Your task to perform on an android device: turn smart compose on in the gmail app Image 0: 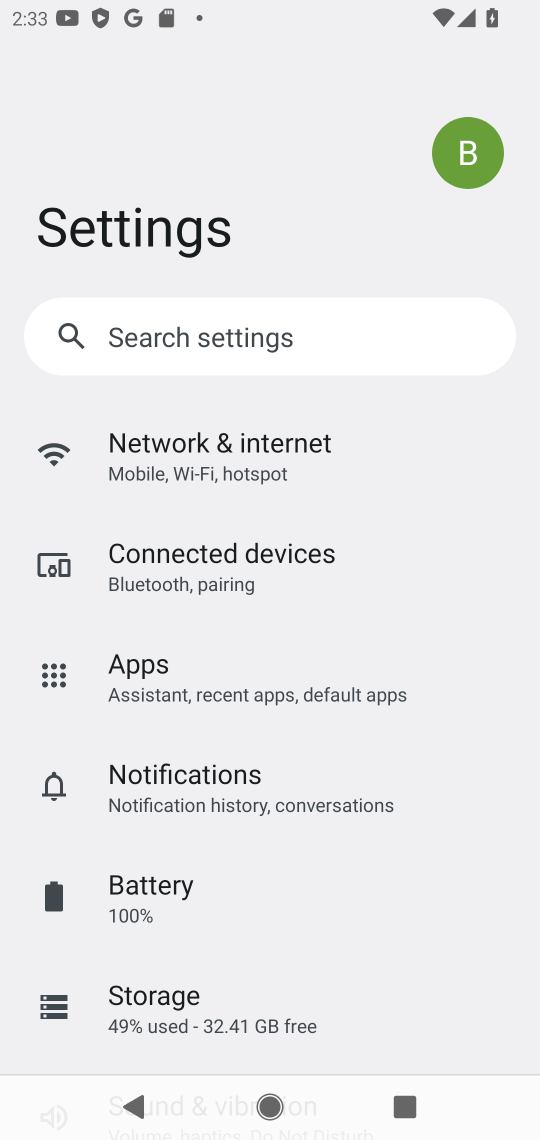
Step 0: press home button
Your task to perform on an android device: turn smart compose on in the gmail app Image 1: 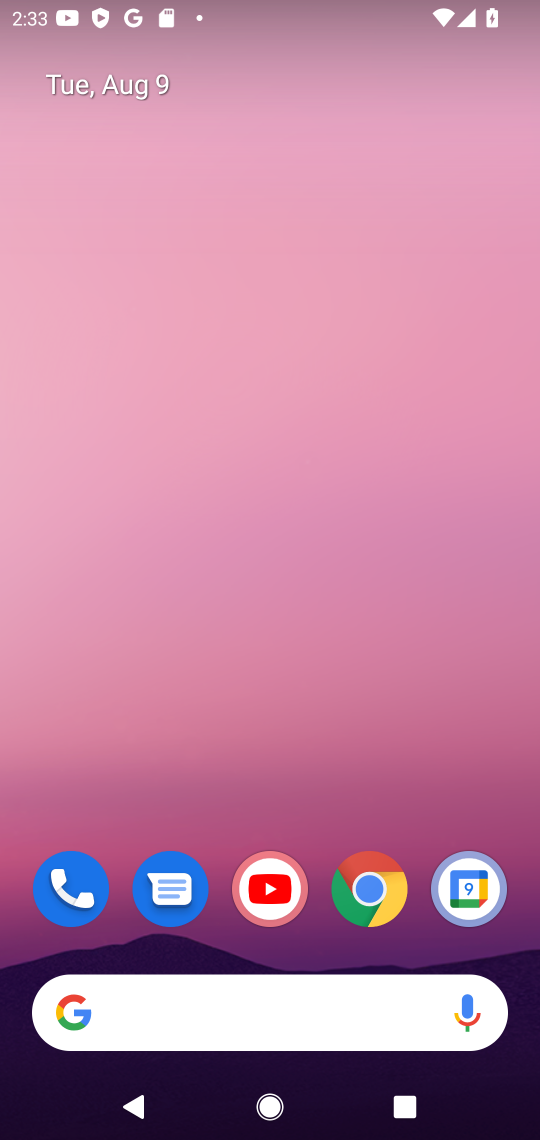
Step 1: drag from (247, 786) to (333, 0)
Your task to perform on an android device: turn smart compose on in the gmail app Image 2: 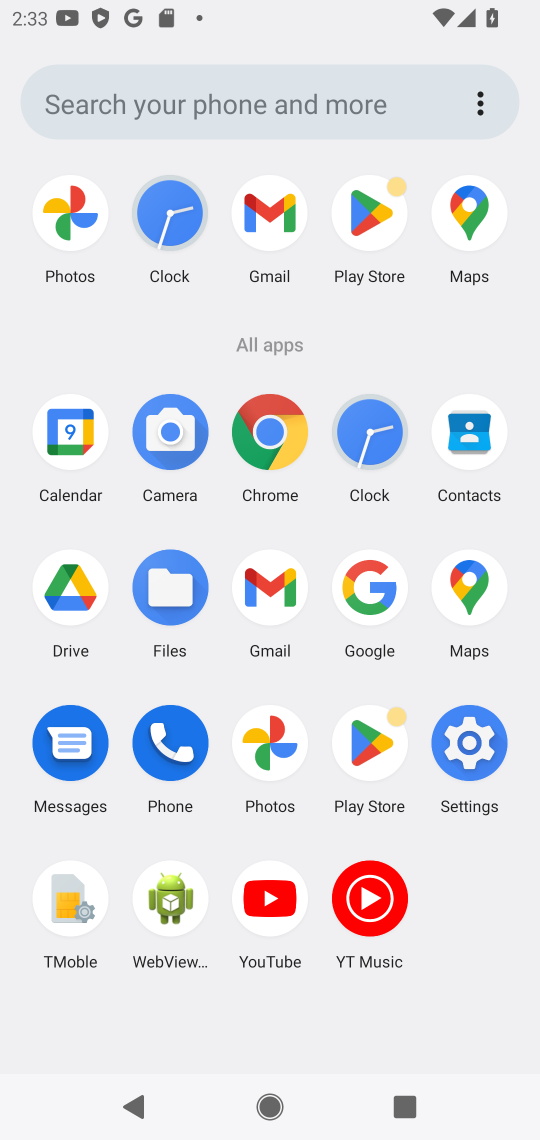
Step 2: click (284, 207)
Your task to perform on an android device: turn smart compose on in the gmail app Image 3: 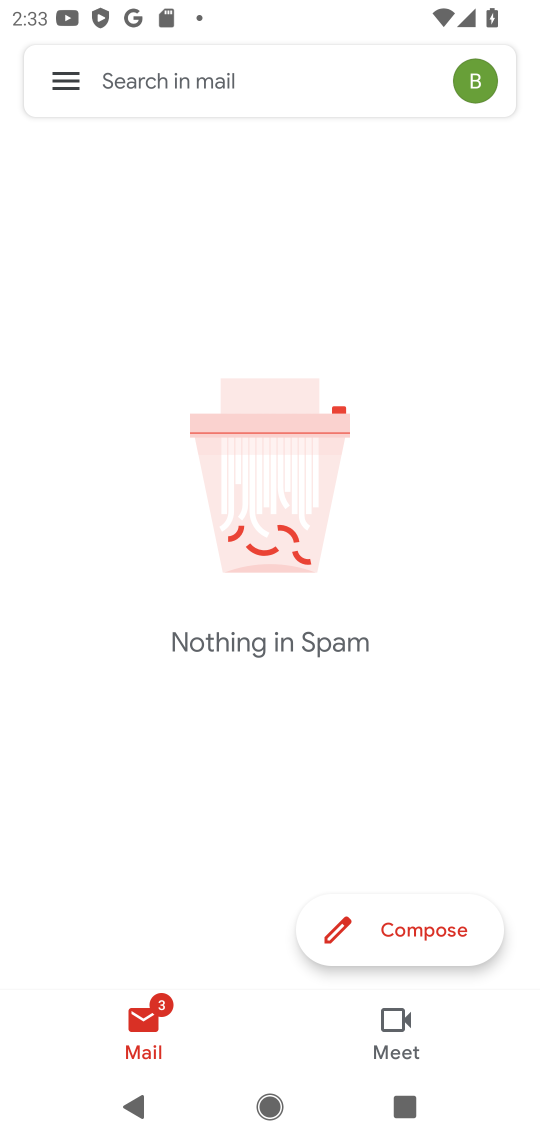
Step 3: click (72, 70)
Your task to perform on an android device: turn smart compose on in the gmail app Image 4: 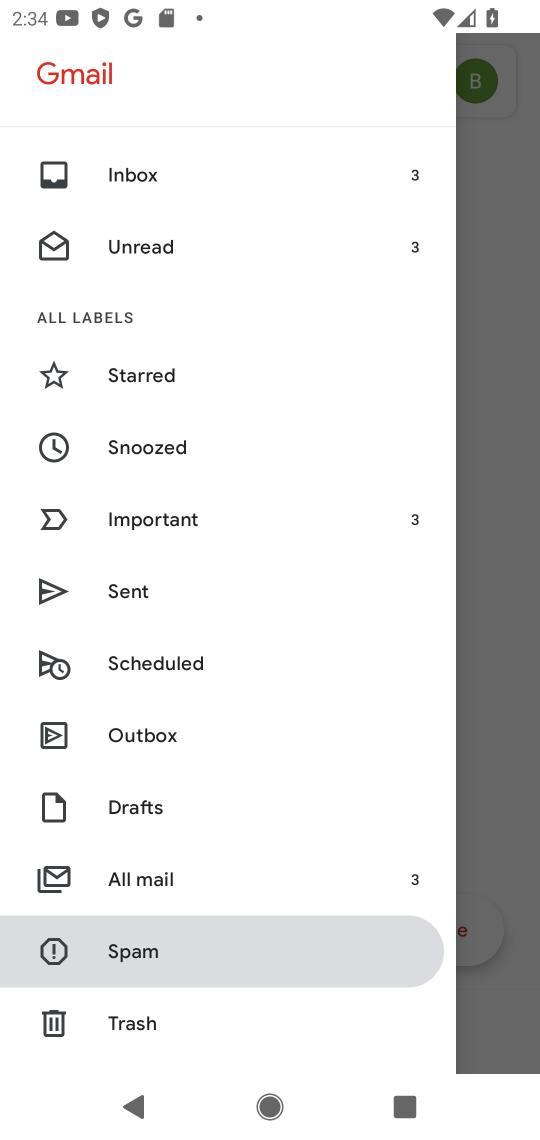
Step 4: drag from (218, 855) to (330, 229)
Your task to perform on an android device: turn smart compose on in the gmail app Image 5: 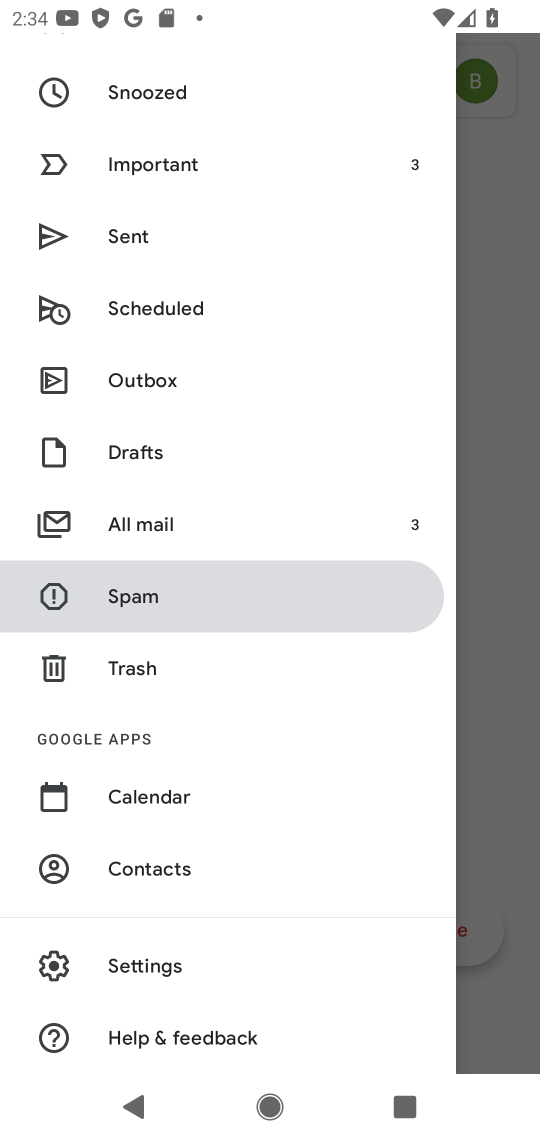
Step 5: click (186, 959)
Your task to perform on an android device: turn smart compose on in the gmail app Image 6: 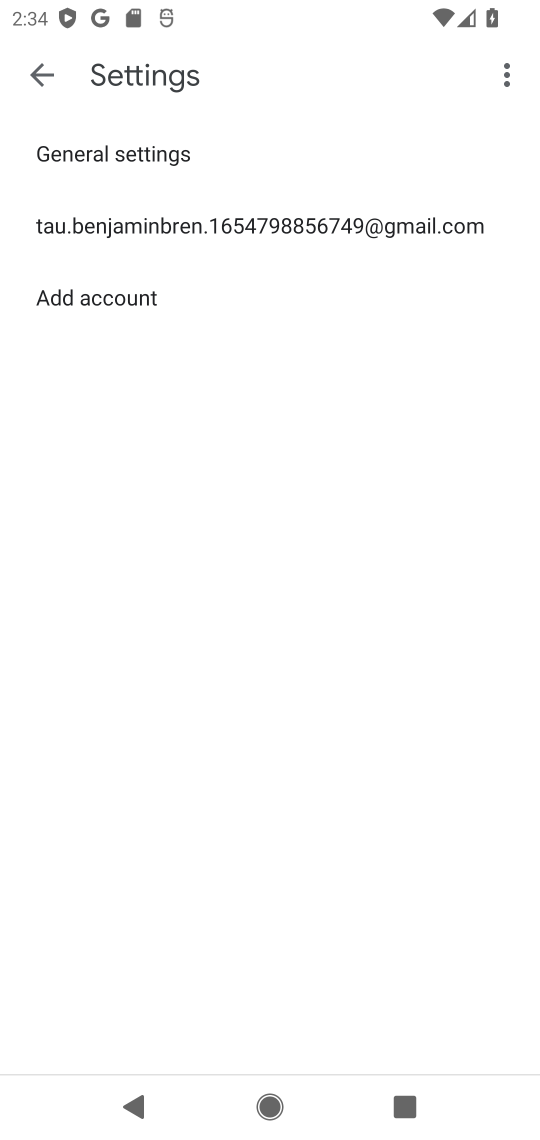
Step 6: click (342, 219)
Your task to perform on an android device: turn smart compose on in the gmail app Image 7: 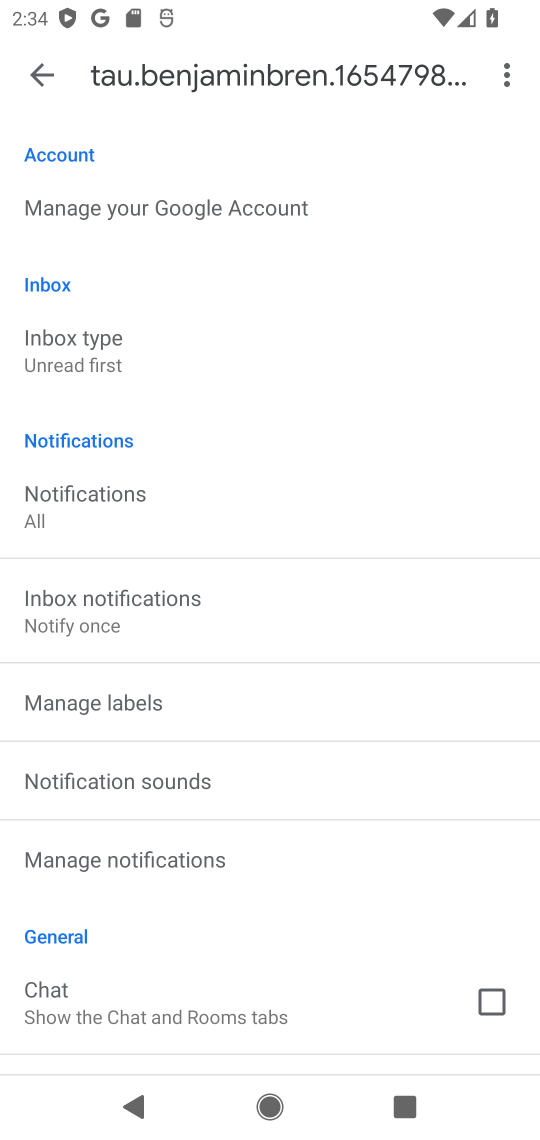
Step 7: task complete